Your task to perform on an android device: Go to Yahoo.com Image 0: 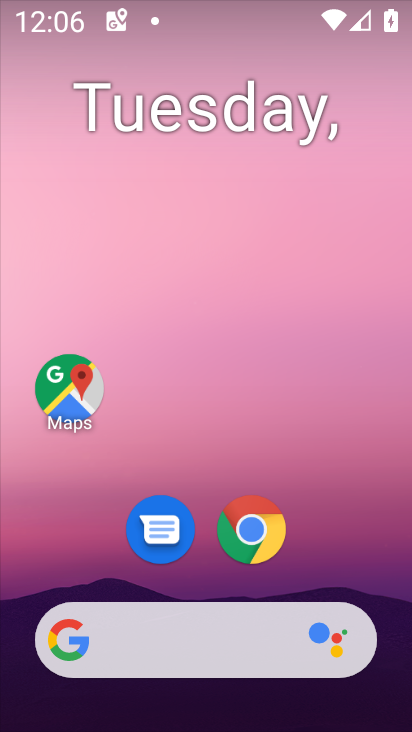
Step 0: click (240, 520)
Your task to perform on an android device: Go to Yahoo.com Image 1: 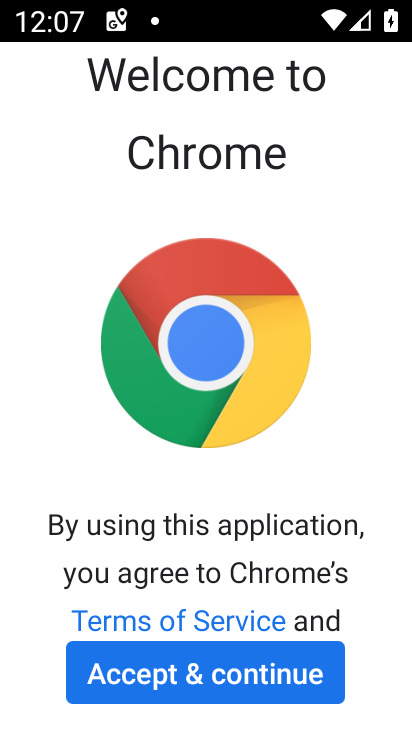
Step 1: click (208, 660)
Your task to perform on an android device: Go to Yahoo.com Image 2: 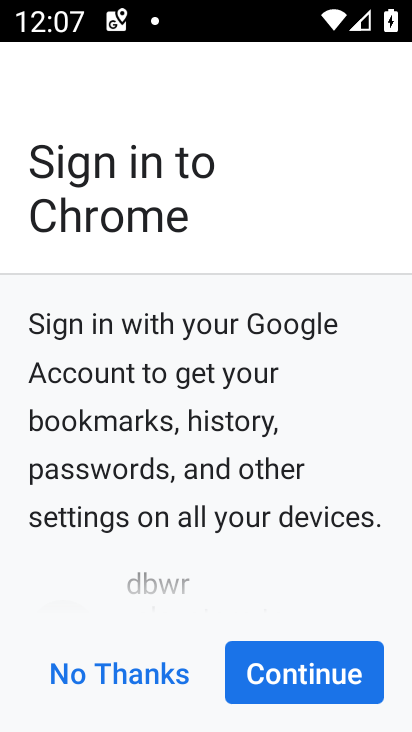
Step 2: click (307, 682)
Your task to perform on an android device: Go to Yahoo.com Image 3: 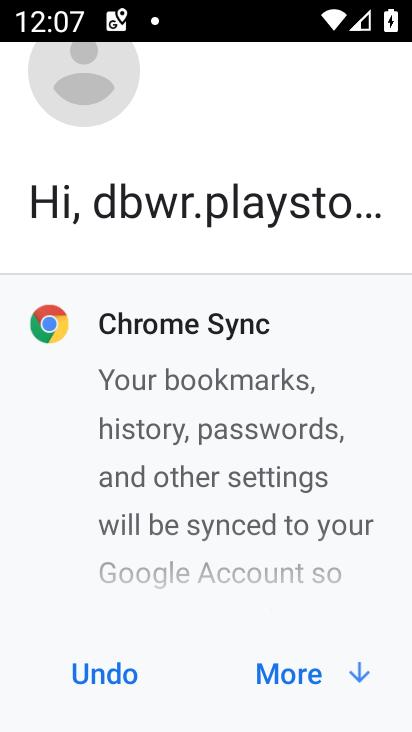
Step 3: click (308, 673)
Your task to perform on an android device: Go to Yahoo.com Image 4: 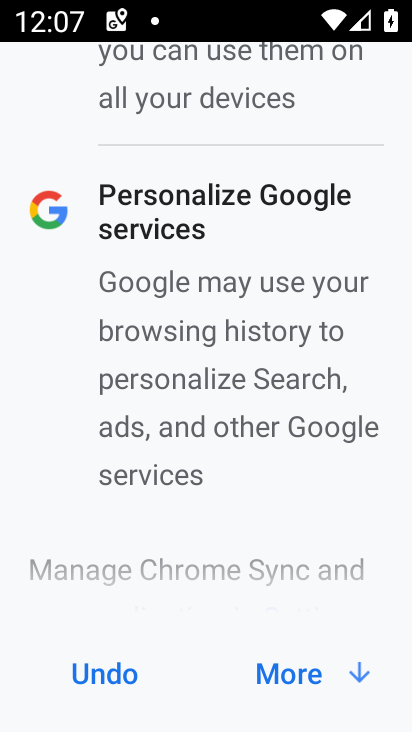
Step 4: click (288, 665)
Your task to perform on an android device: Go to Yahoo.com Image 5: 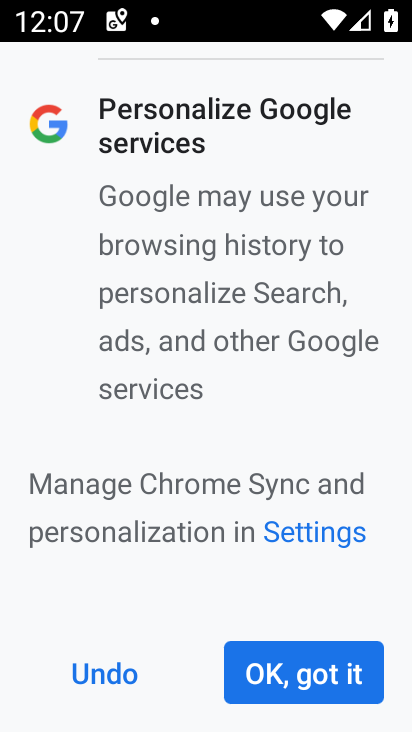
Step 5: click (288, 665)
Your task to perform on an android device: Go to Yahoo.com Image 6: 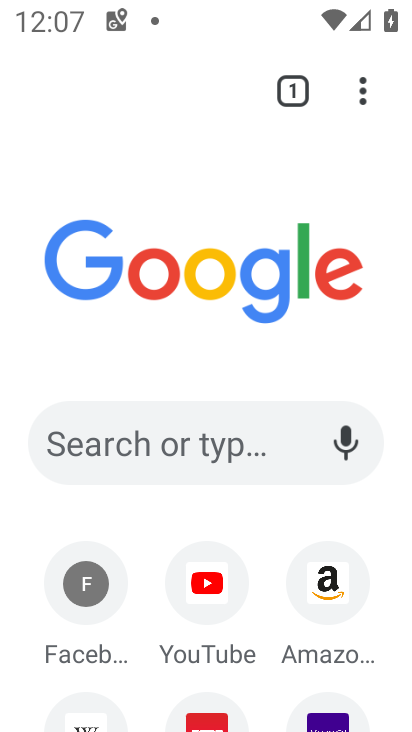
Step 6: drag from (203, 657) to (242, 309)
Your task to perform on an android device: Go to Yahoo.com Image 7: 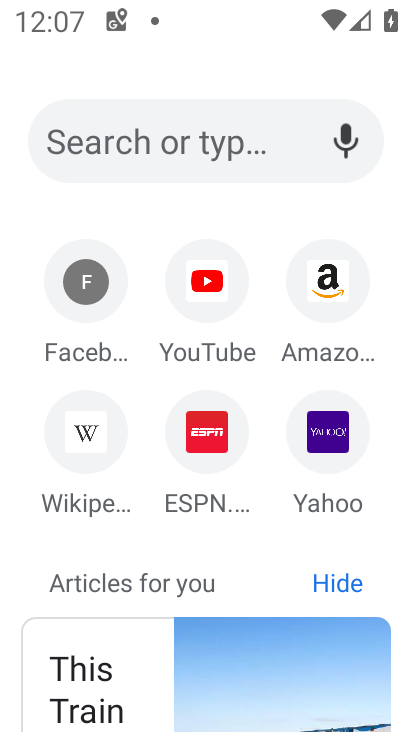
Step 7: click (320, 411)
Your task to perform on an android device: Go to Yahoo.com Image 8: 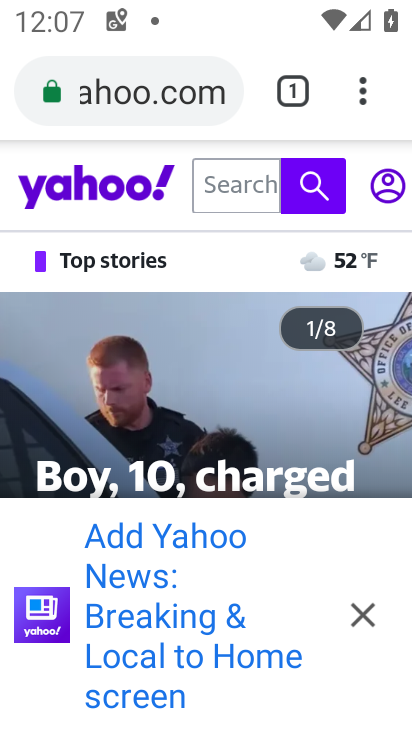
Step 8: task complete